Your task to perform on an android device: Go to internet settings Image 0: 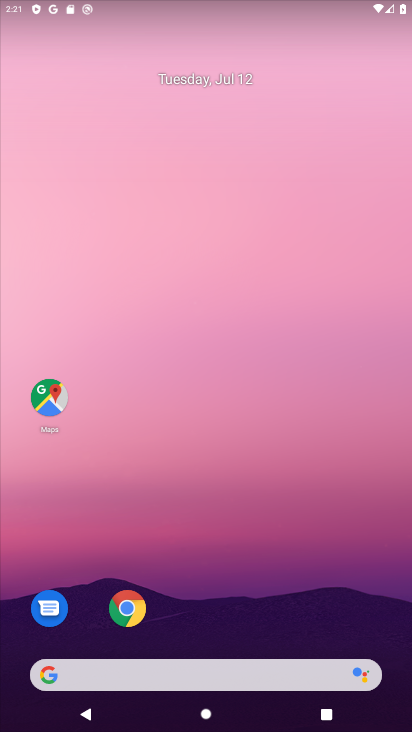
Step 0: drag from (289, 561) to (241, 203)
Your task to perform on an android device: Go to internet settings Image 1: 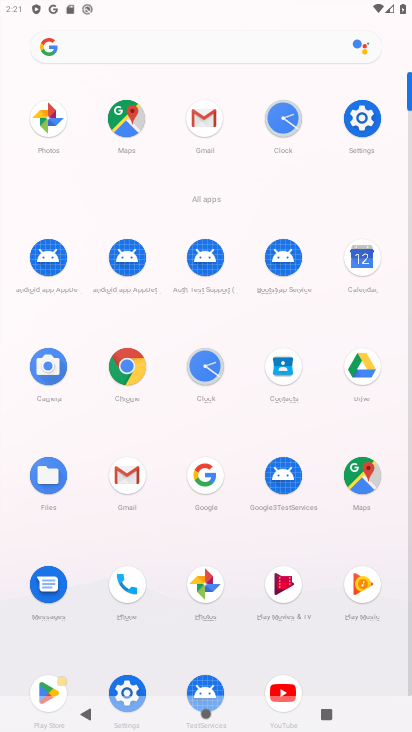
Step 1: click (372, 115)
Your task to perform on an android device: Go to internet settings Image 2: 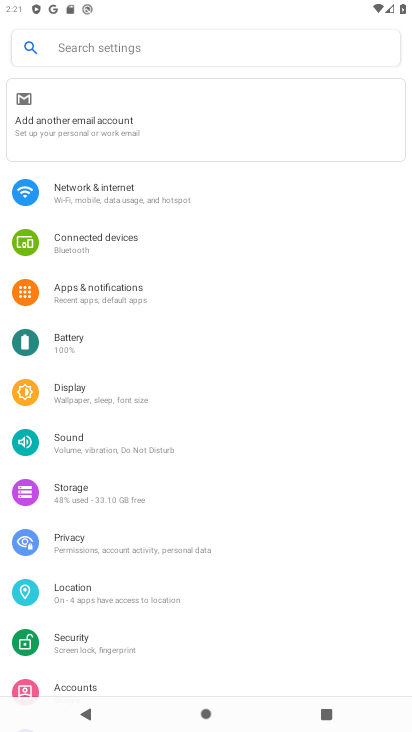
Step 2: click (109, 191)
Your task to perform on an android device: Go to internet settings Image 3: 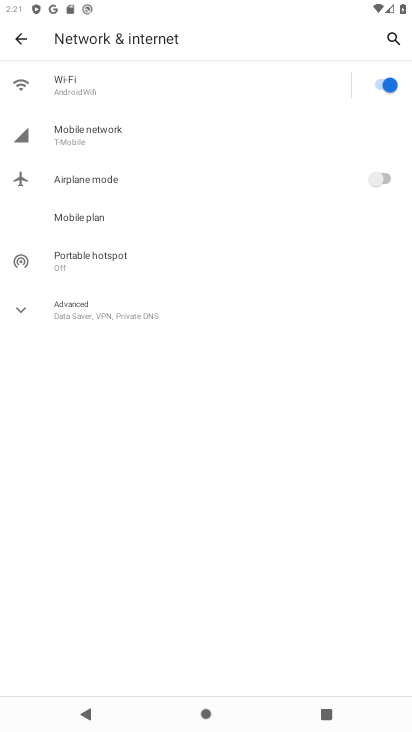
Step 3: task complete